Your task to perform on an android device: Open the calendar app, open the side menu, and click the "Day" option Image 0: 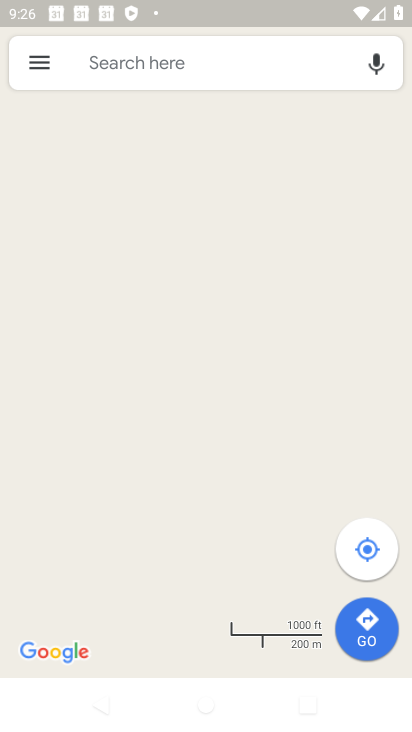
Step 0: press home button
Your task to perform on an android device: Open the calendar app, open the side menu, and click the "Day" option Image 1: 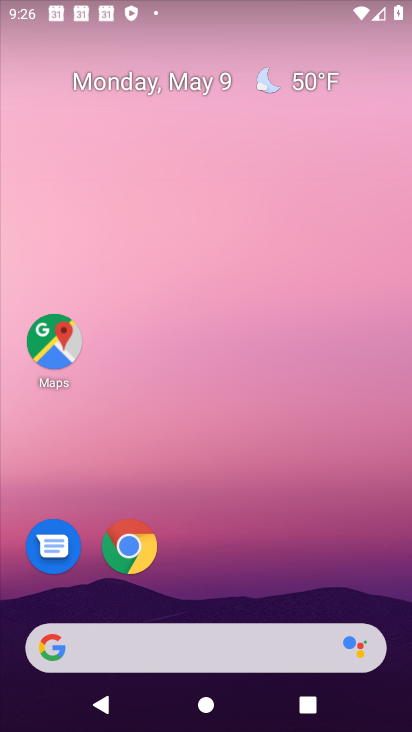
Step 1: drag from (295, 574) to (303, 68)
Your task to perform on an android device: Open the calendar app, open the side menu, and click the "Day" option Image 2: 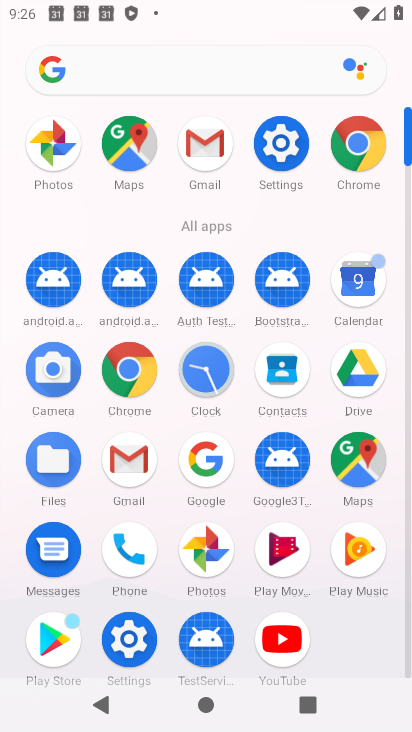
Step 2: drag from (354, 644) to (350, 412)
Your task to perform on an android device: Open the calendar app, open the side menu, and click the "Day" option Image 3: 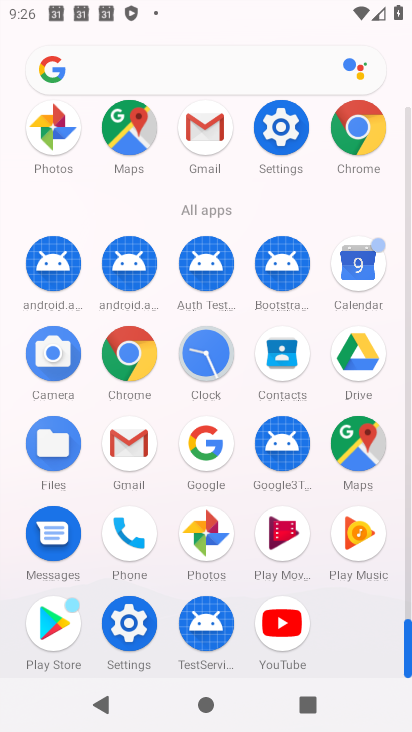
Step 3: click (359, 271)
Your task to perform on an android device: Open the calendar app, open the side menu, and click the "Day" option Image 4: 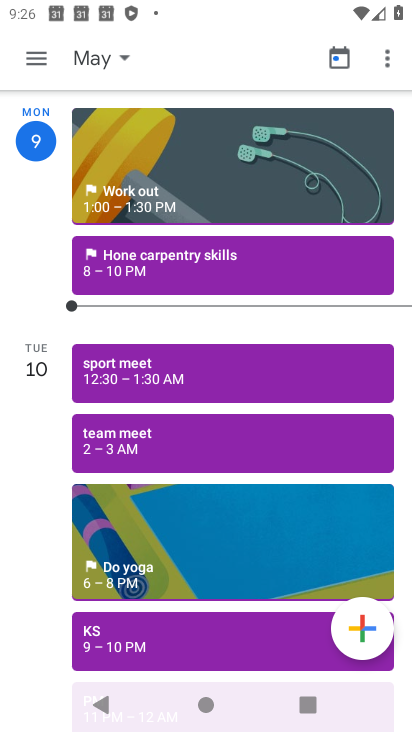
Step 4: click (37, 57)
Your task to perform on an android device: Open the calendar app, open the side menu, and click the "Day" option Image 5: 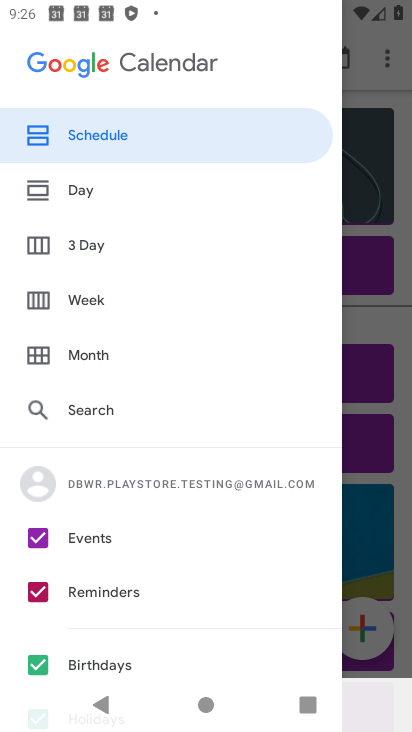
Step 5: click (81, 191)
Your task to perform on an android device: Open the calendar app, open the side menu, and click the "Day" option Image 6: 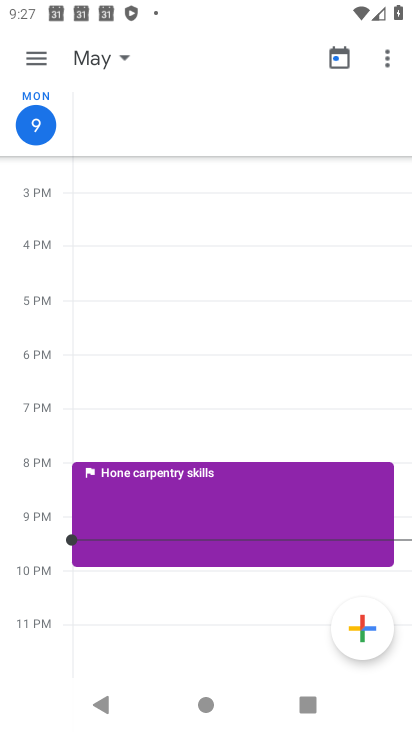
Step 6: task complete